Your task to perform on an android device: choose inbox layout in the gmail app Image 0: 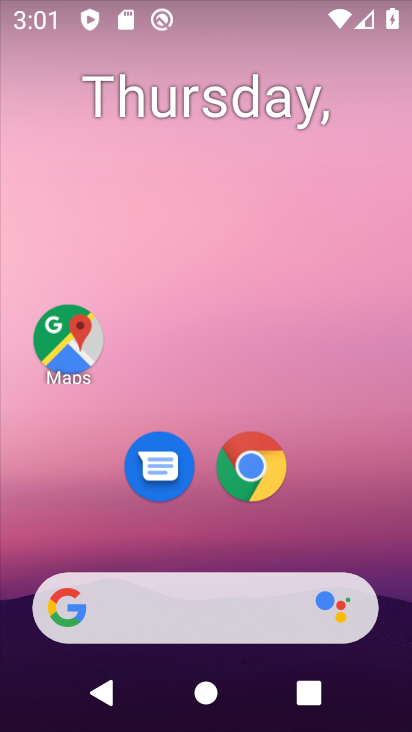
Step 0: drag from (215, 571) to (234, 0)
Your task to perform on an android device: choose inbox layout in the gmail app Image 1: 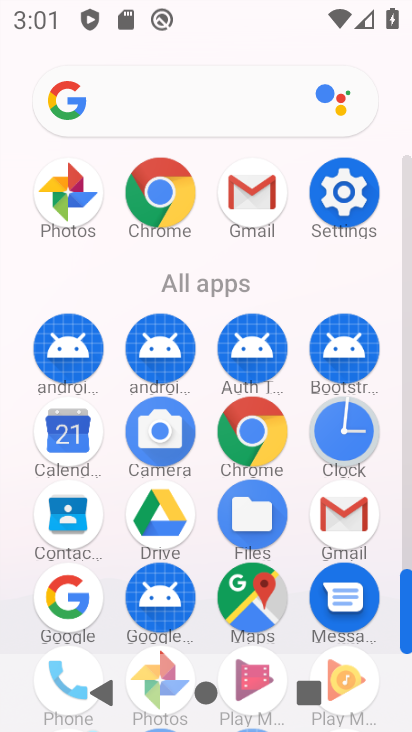
Step 1: click (353, 522)
Your task to perform on an android device: choose inbox layout in the gmail app Image 2: 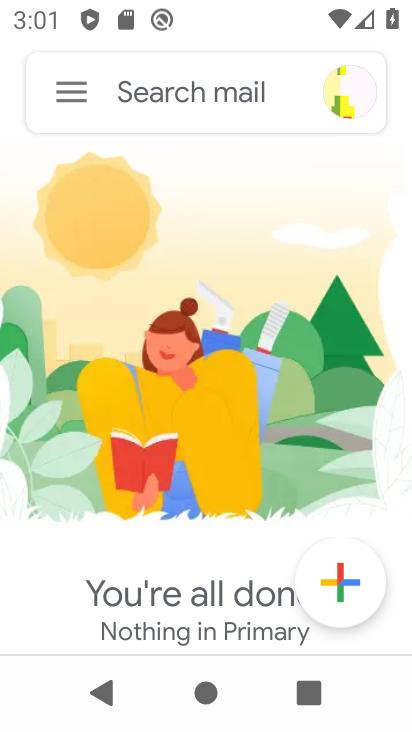
Step 2: click (69, 95)
Your task to perform on an android device: choose inbox layout in the gmail app Image 3: 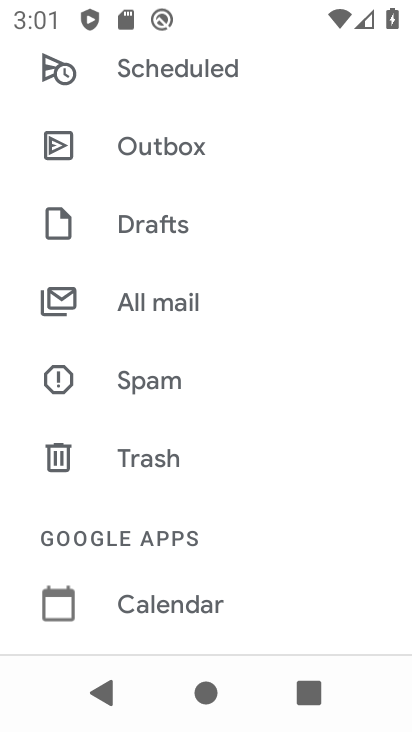
Step 3: drag from (129, 143) to (129, 570)
Your task to perform on an android device: choose inbox layout in the gmail app Image 4: 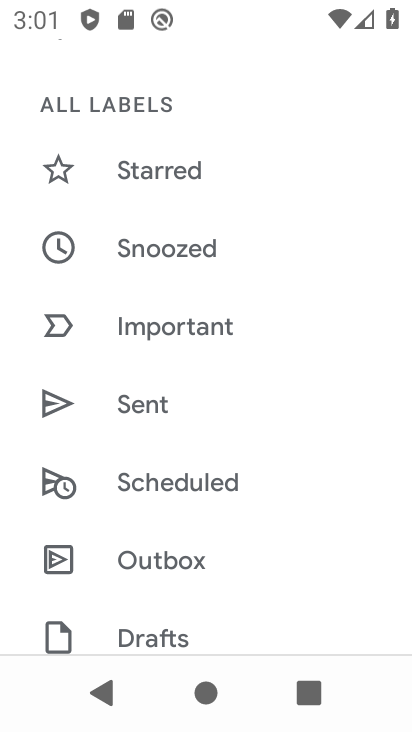
Step 4: drag from (98, 219) to (92, 603)
Your task to perform on an android device: choose inbox layout in the gmail app Image 5: 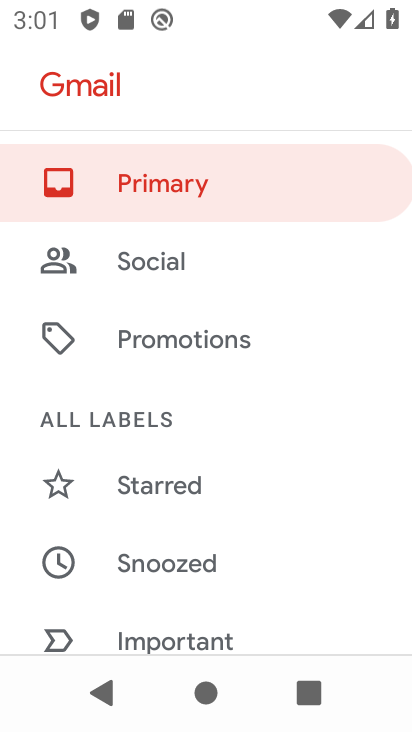
Step 5: drag from (138, 520) to (130, 24)
Your task to perform on an android device: choose inbox layout in the gmail app Image 6: 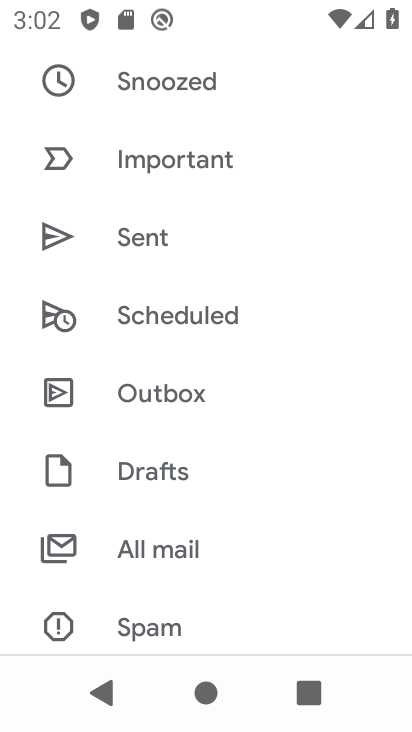
Step 6: drag from (118, 518) to (119, 105)
Your task to perform on an android device: choose inbox layout in the gmail app Image 7: 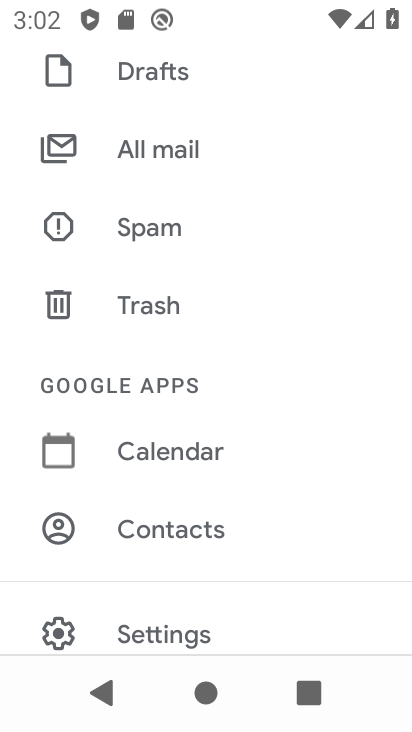
Step 7: click (204, 609)
Your task to perform on an android device: choose inbox layout in the gmail app Image 8: 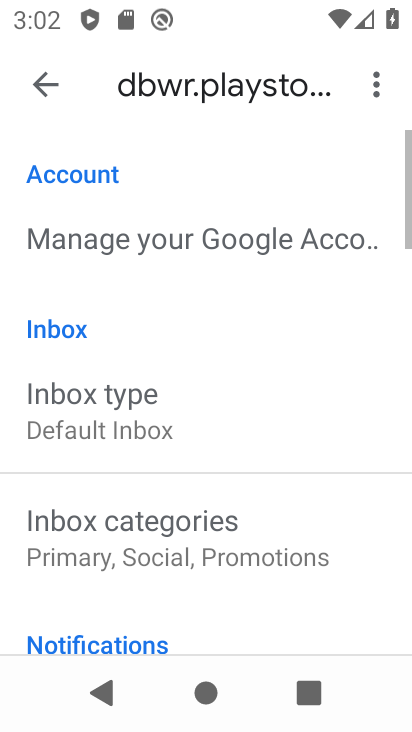
Step 8: click (138, 412)
Your task to perform on an android device: choose inbox layout in the gmail app Image 9: 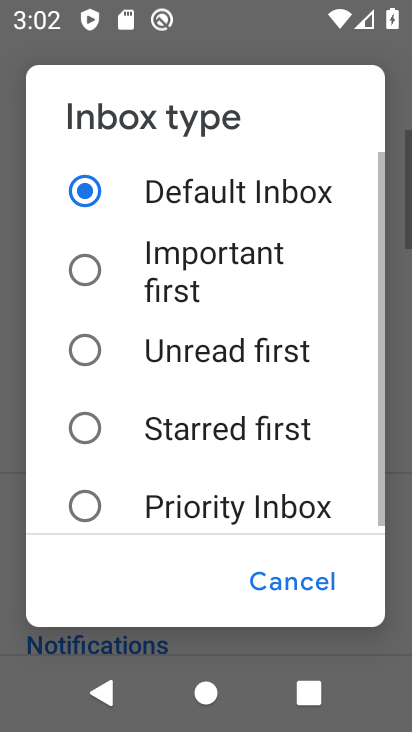
Step 9: click (165, 509)
Your task to perform on an android device: choose inbox layout in the gmail app Image 10: 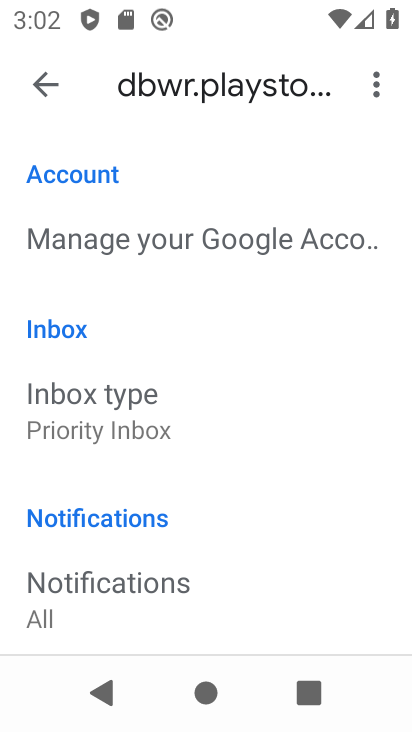
Step 10: task complete